Your task to perform on an android device: Open calendar and show me the third week of next month Image 0: 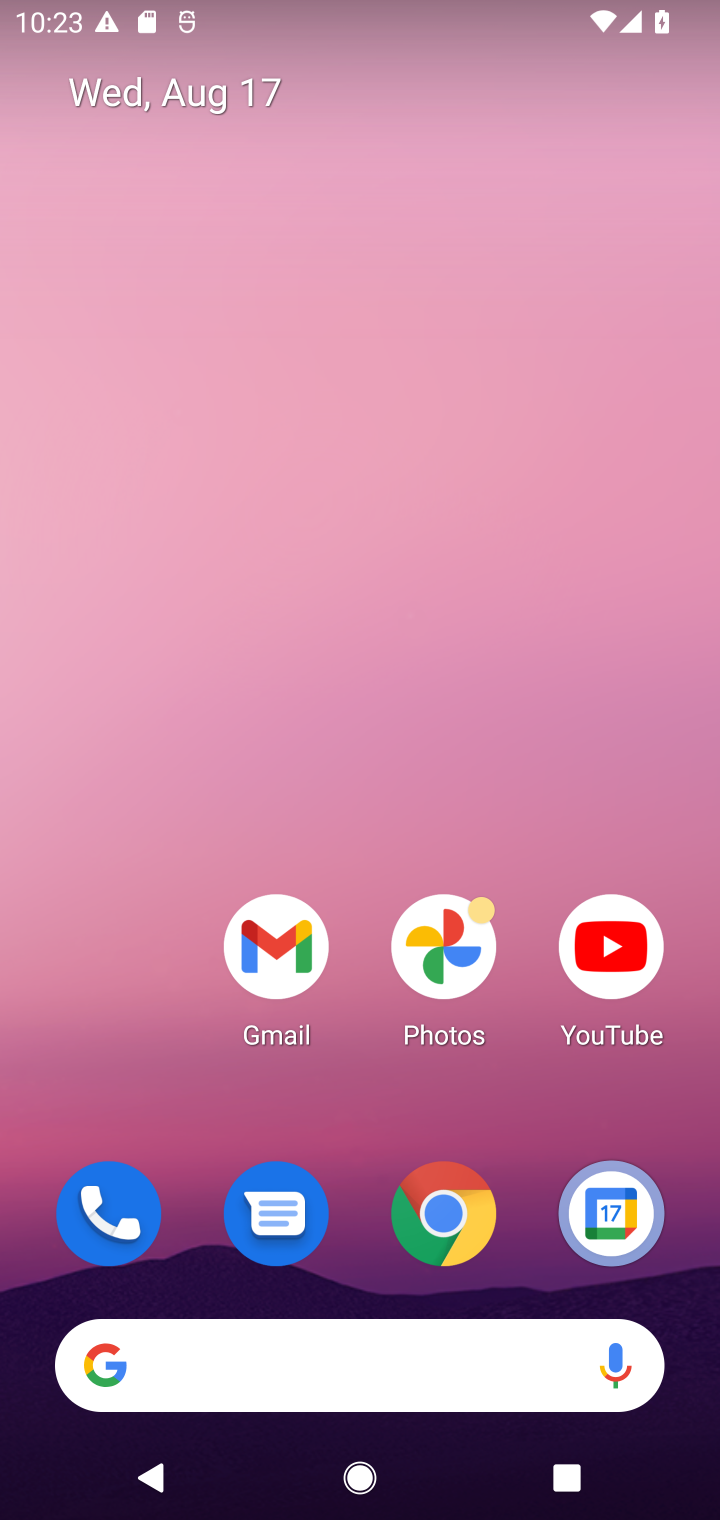
Step 0: drag from (466, 669) to (335, 63)
Your task to perform on an android device: Open calendar and show me the third week of next month Image 1: 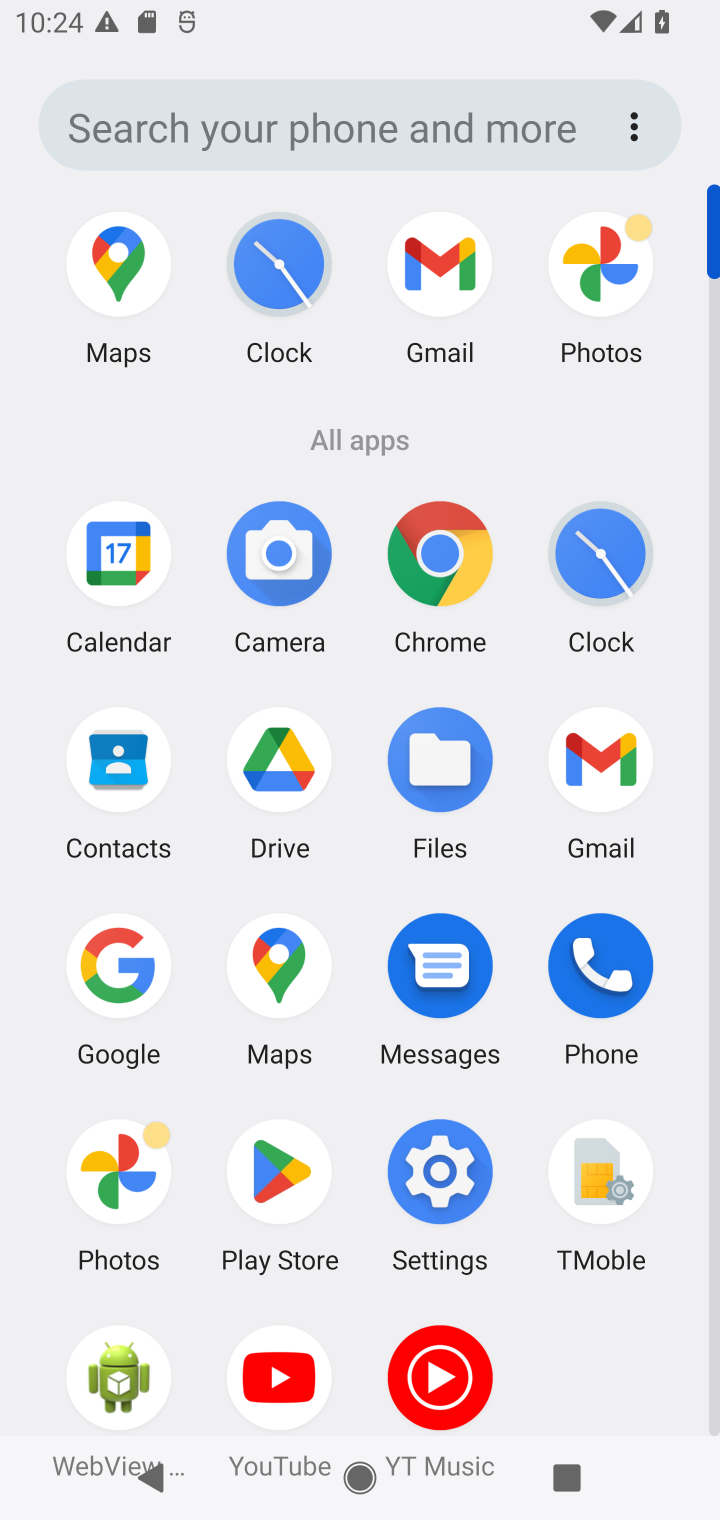
Step 1: click (85, 574)
Your task to perform on an android device: Open calendar and show me the third week of next month Image 2: 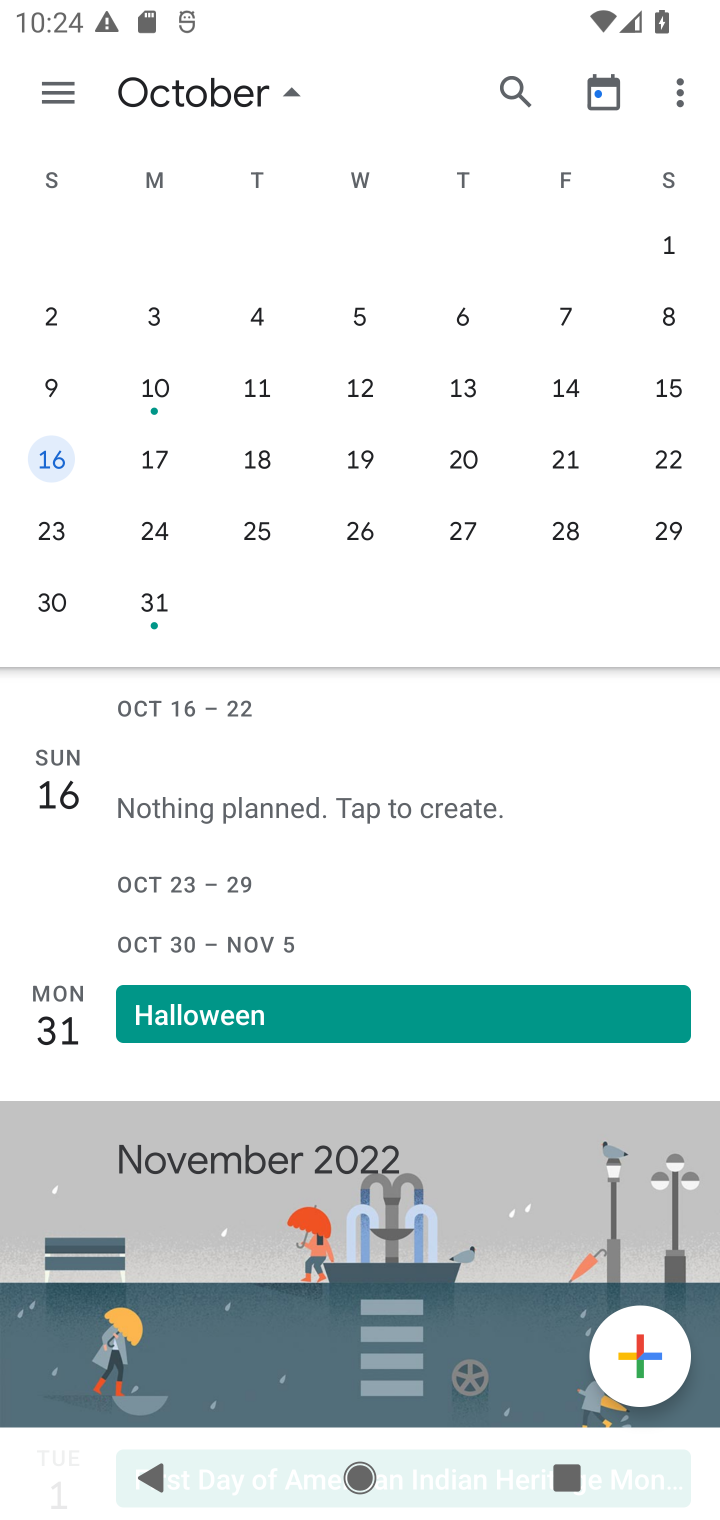
Step 2: drag from (669, 428) to (7, 454)
Your task to perform on an android device: Open calendar and show me the third week of next month Image 3: 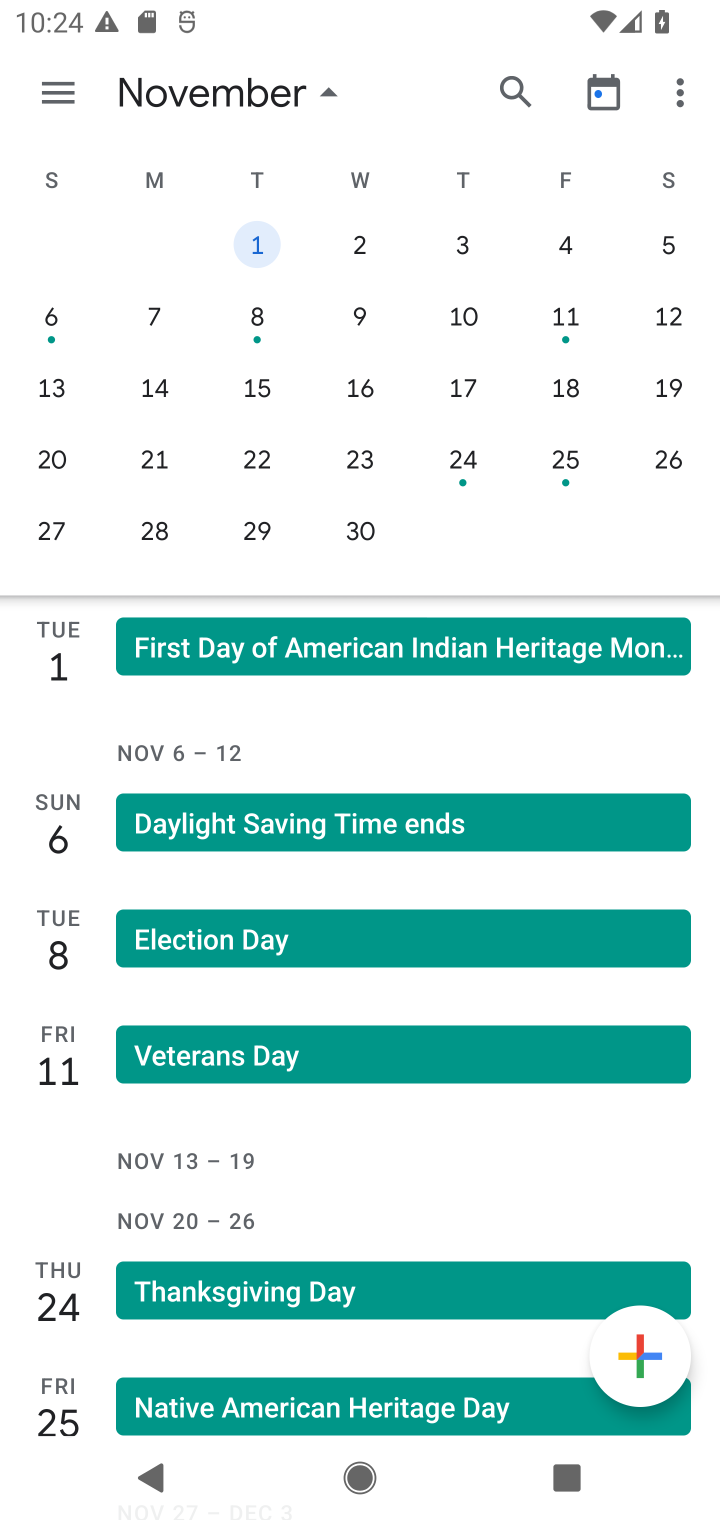
Step 3: click (35, 459)
Your task to perform on an android device: Open calendar and show me the third week of next month Image 4: 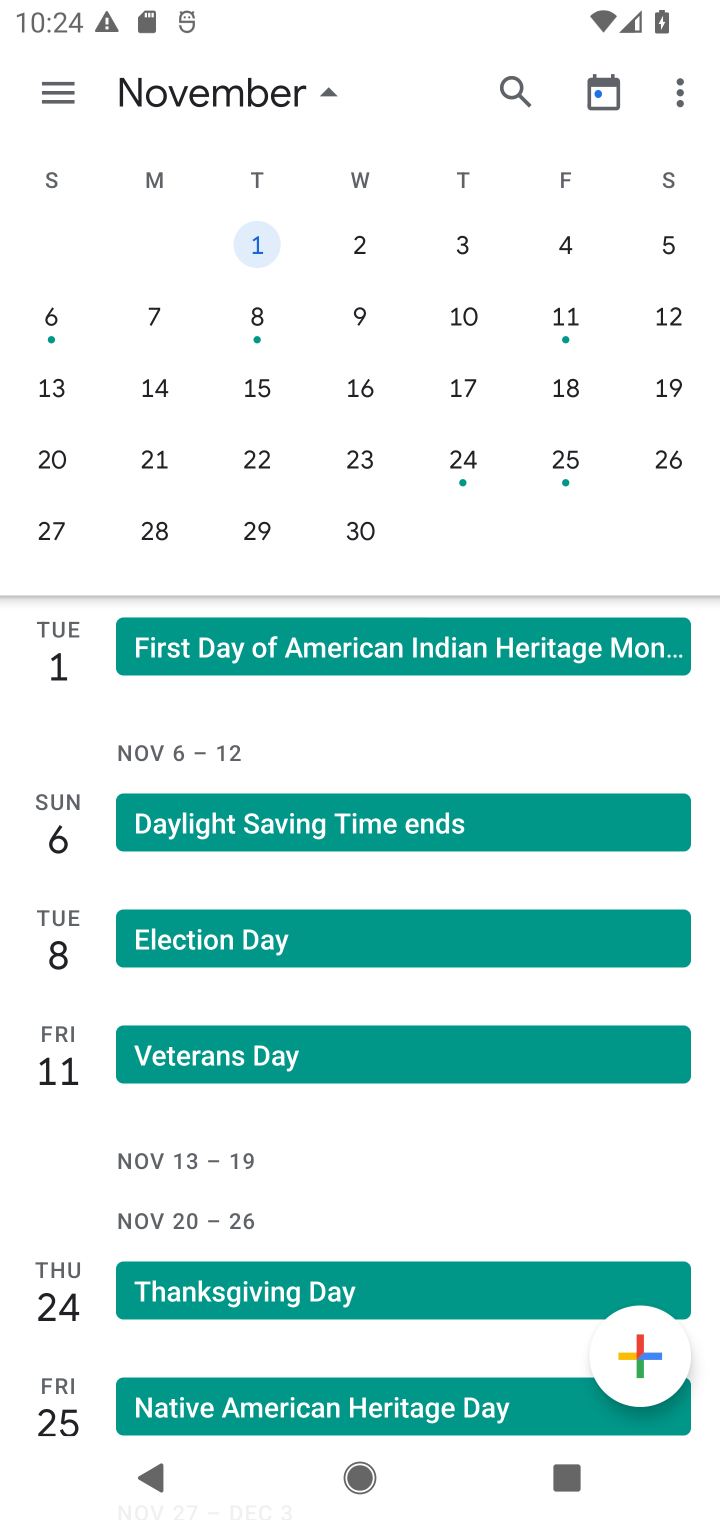
Step 4: click (41, 453)
Your task to perform on an android device: Open calendar and show me the third week of next month Image 5: 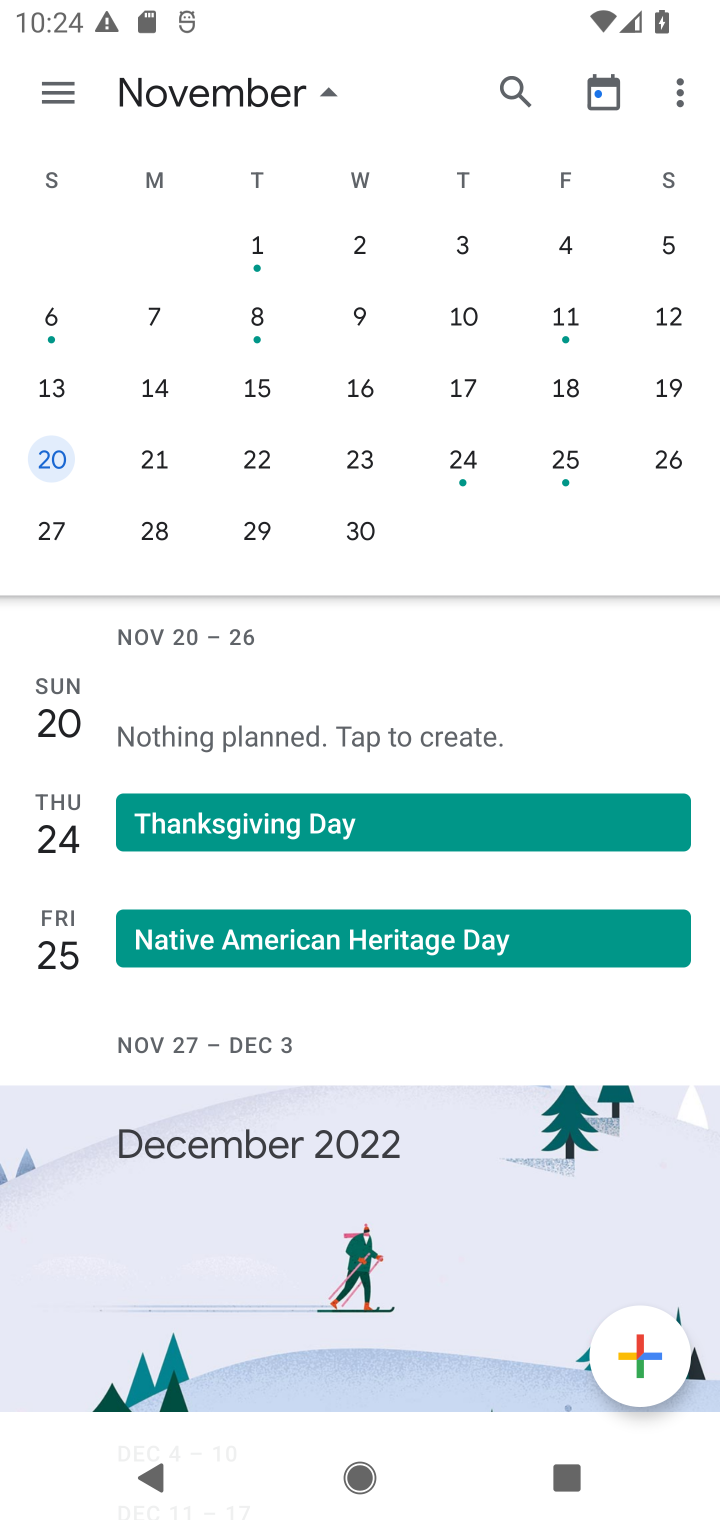
Step 5: task complete